Your task to perform on an android device: Open calendar and show me the third week of next month Image 0: 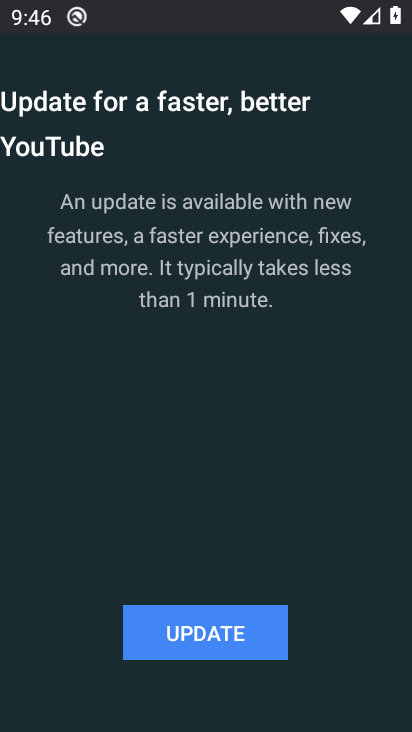
Step 0: press home button
Your task to perform on an android device: Open calendar and show me the third week of next month Image 1: 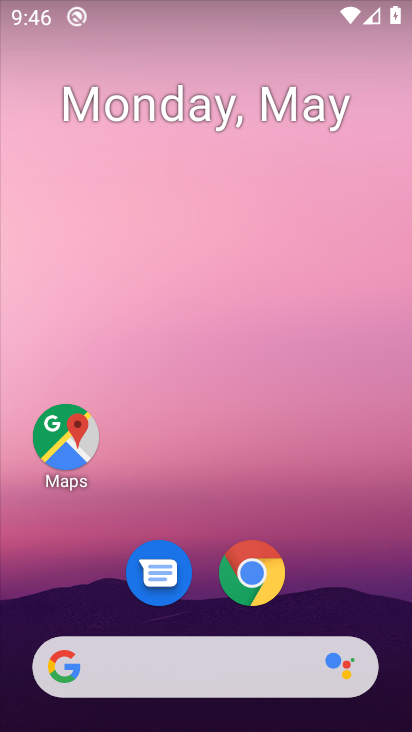
Step 1: drag from (258, 392) to (337, 23)
Your task to perform on an android device: Open calendar and show me the third week of next month Image 2: 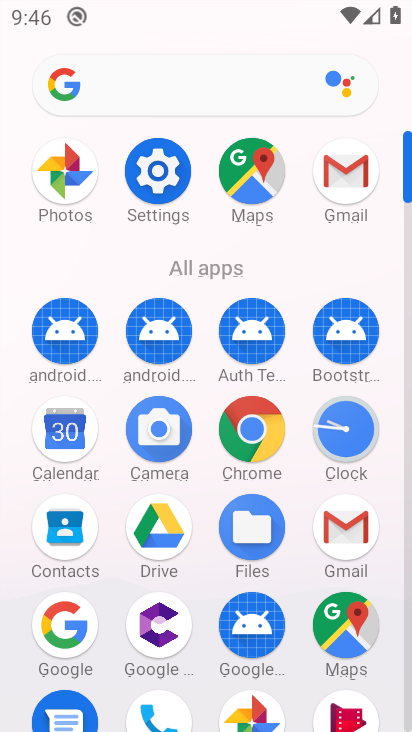
Step 2: click (54, 429)
Your task to perform on an android device: Open calendar and show me the third week of next month Image 3: 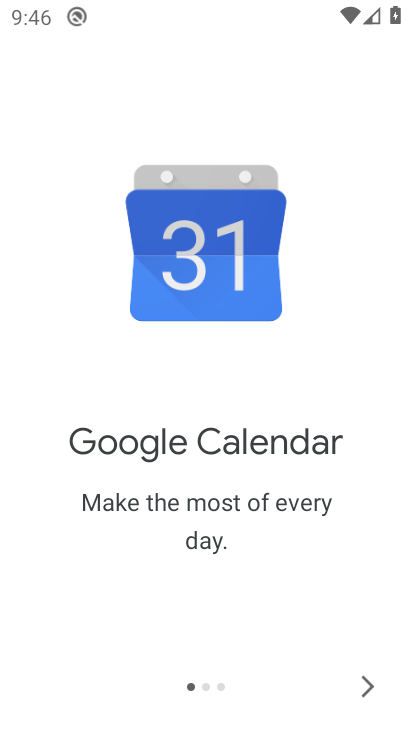
Step 3: click (365, 672)
Your task to perform on an android device: Open calendar and show me the third week of next month Image 4: 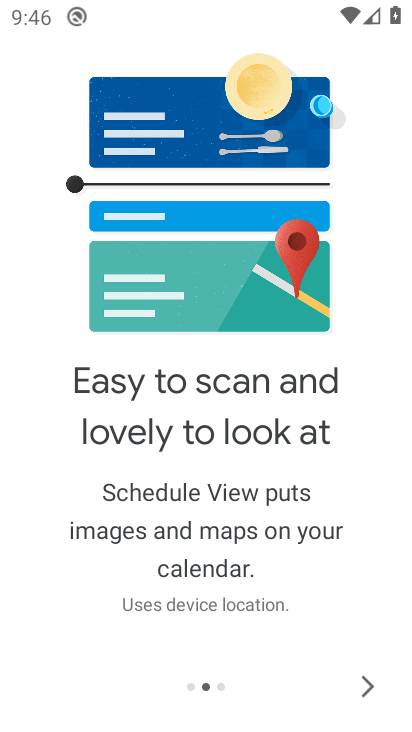
Step 4: click (362, 678)
Your task to perform on an android device: Open calendar and show me the third week of next month Image 5: 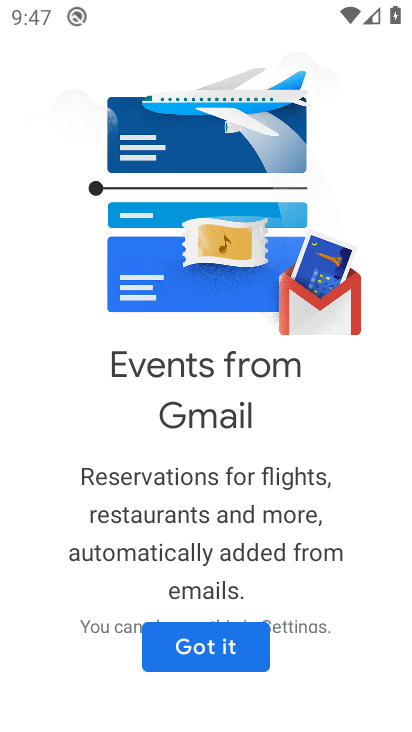
Step 5: click (231, 636)
Your task to perform on an android device: Open calendar and show me the third week of next month Image 6: 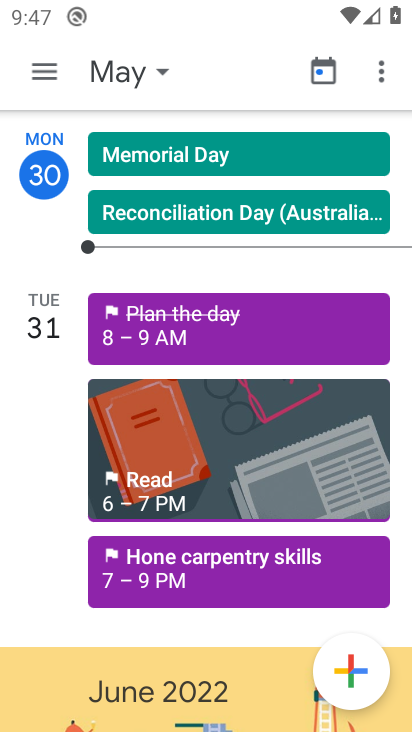
Step 6: click (138, 72)
Your task to perform on an android device: Open calendar and show me the third week of next month Image 7: 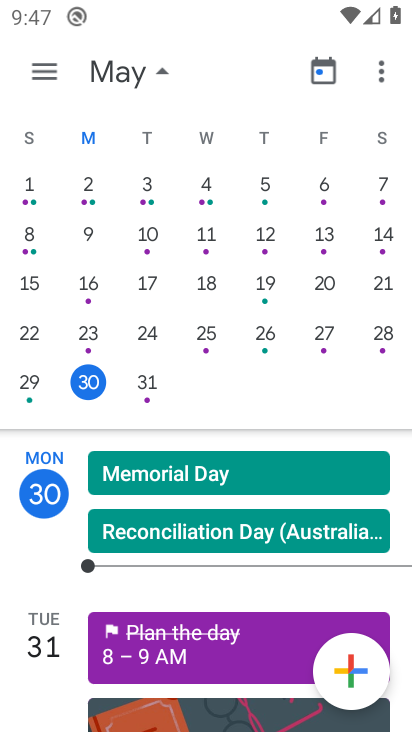
Step 7: drag from (389, 271) to (0, 245)
Your task to perform on an android device: Open calendar and show me the third week of next month Image 8: 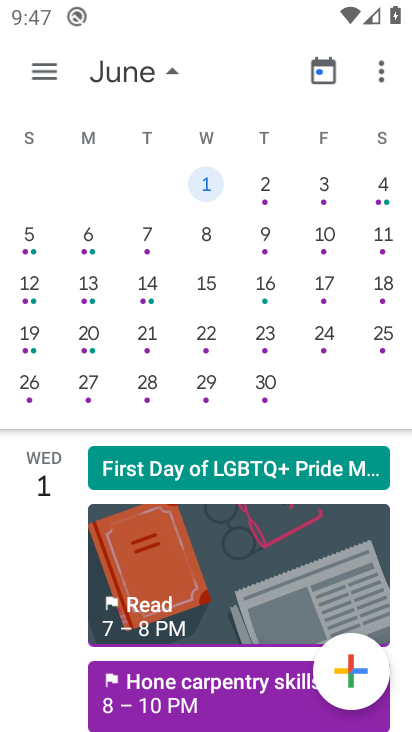
Step 8: click (87, 284)
Your task to perform on an android device: Open calendar and show me the third week of next month Image 9: 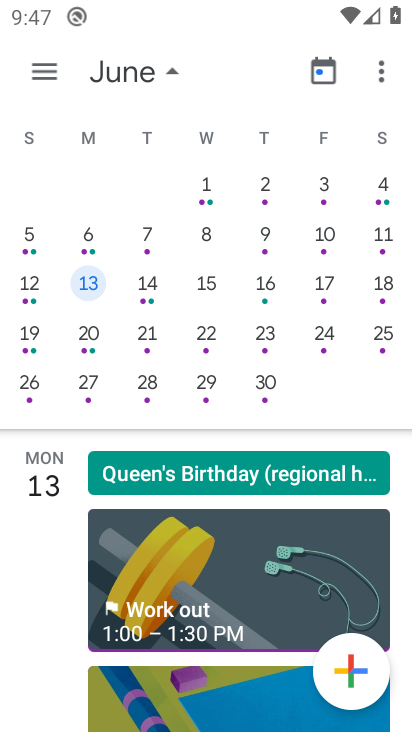
Step 9: task complete